Your task to perform on an android device: check google app version Image 0: 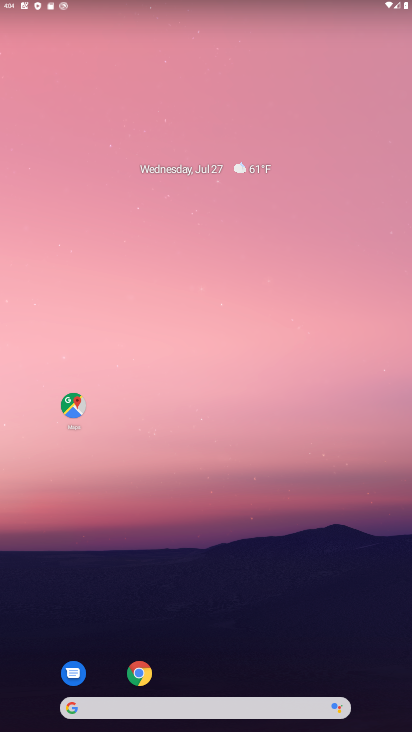
Step 0: drag from (266, 643) to (143, 0)
Your task to perform on an android device: check google app version Image 1: 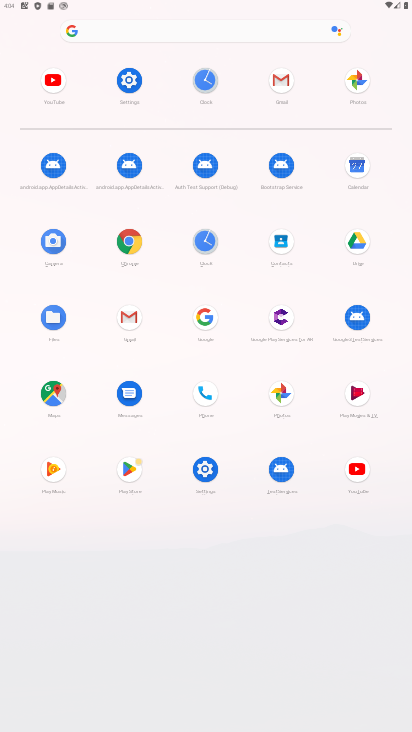
Step 1: click (209, 321)
Your task to perform on an android device: check google app version Image 2: 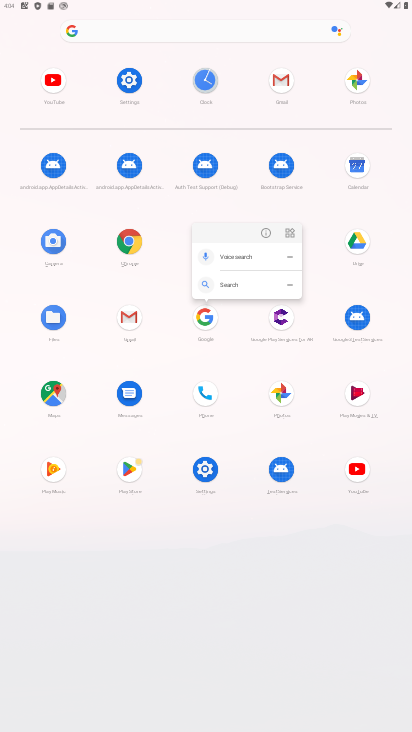
Step 2: click (261, 232)
Your task to perform on an android device: check google app version Image 3: 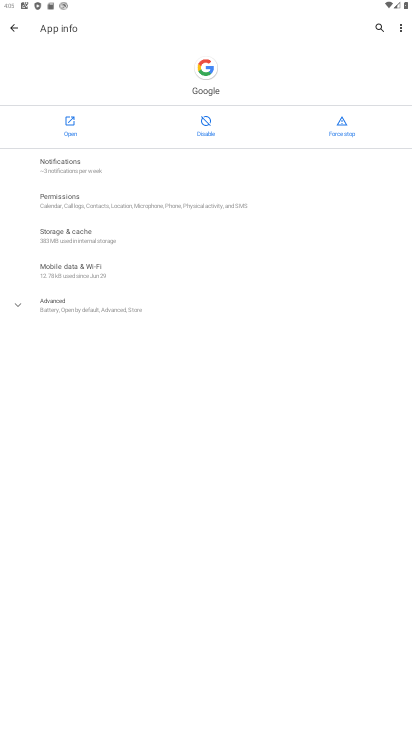
Step 3: click (83, 308)
Your task to perform on an android device: check google app version Image 4: 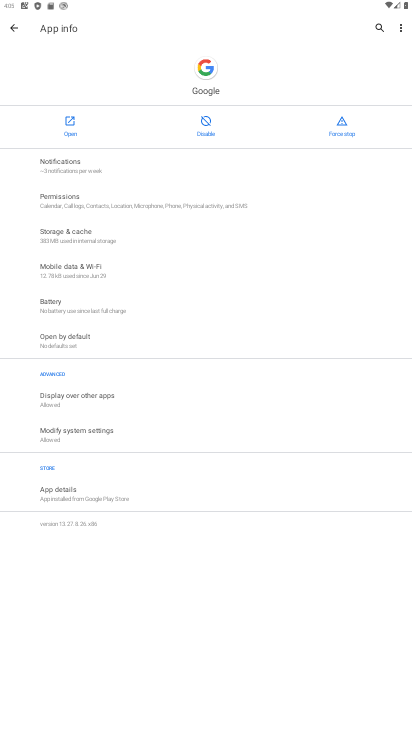
Step 4: task complete